Your task to perform on an android device: turn on showing notifications on the lock screen Image 0: 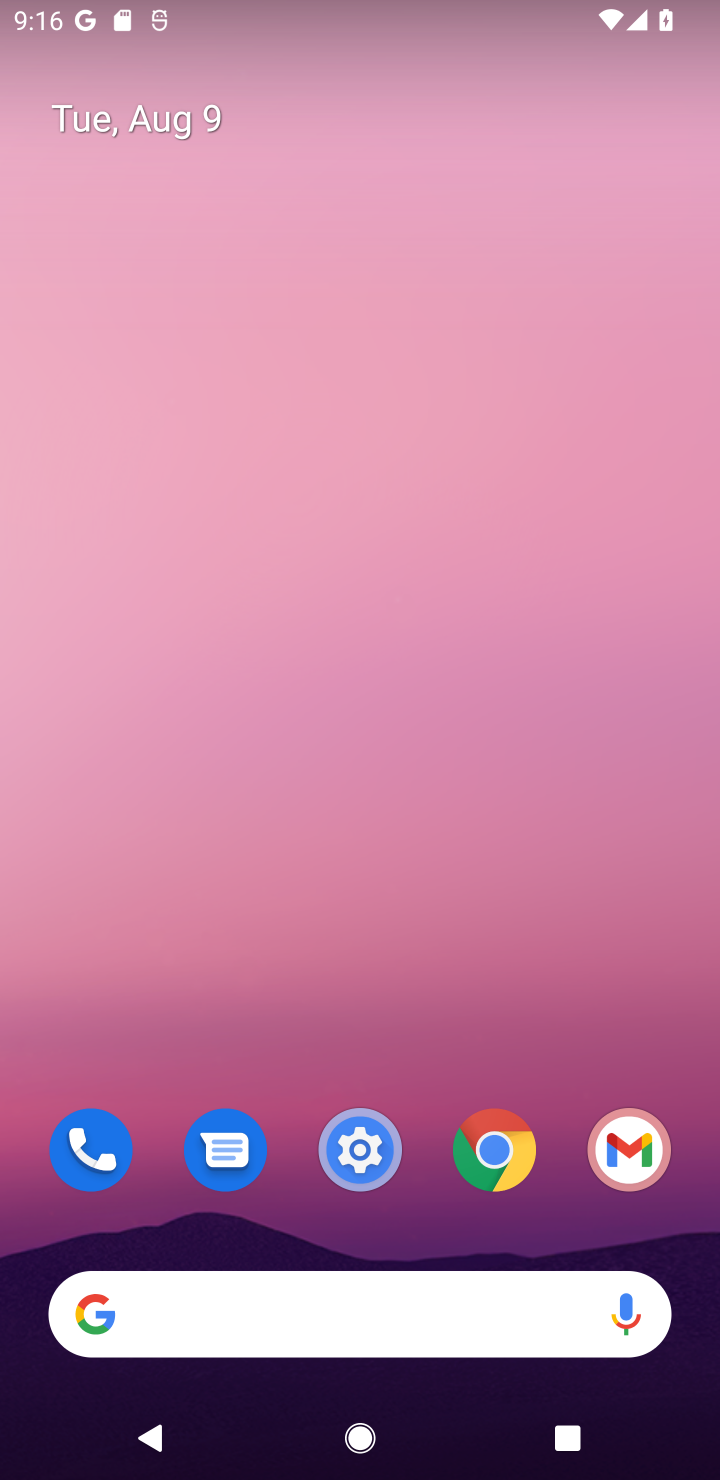
Step 0: drag from (335, 1248) to (472, 197)
Your task to perform on an android device: turn on showing notifications on the lock screen Image 1: 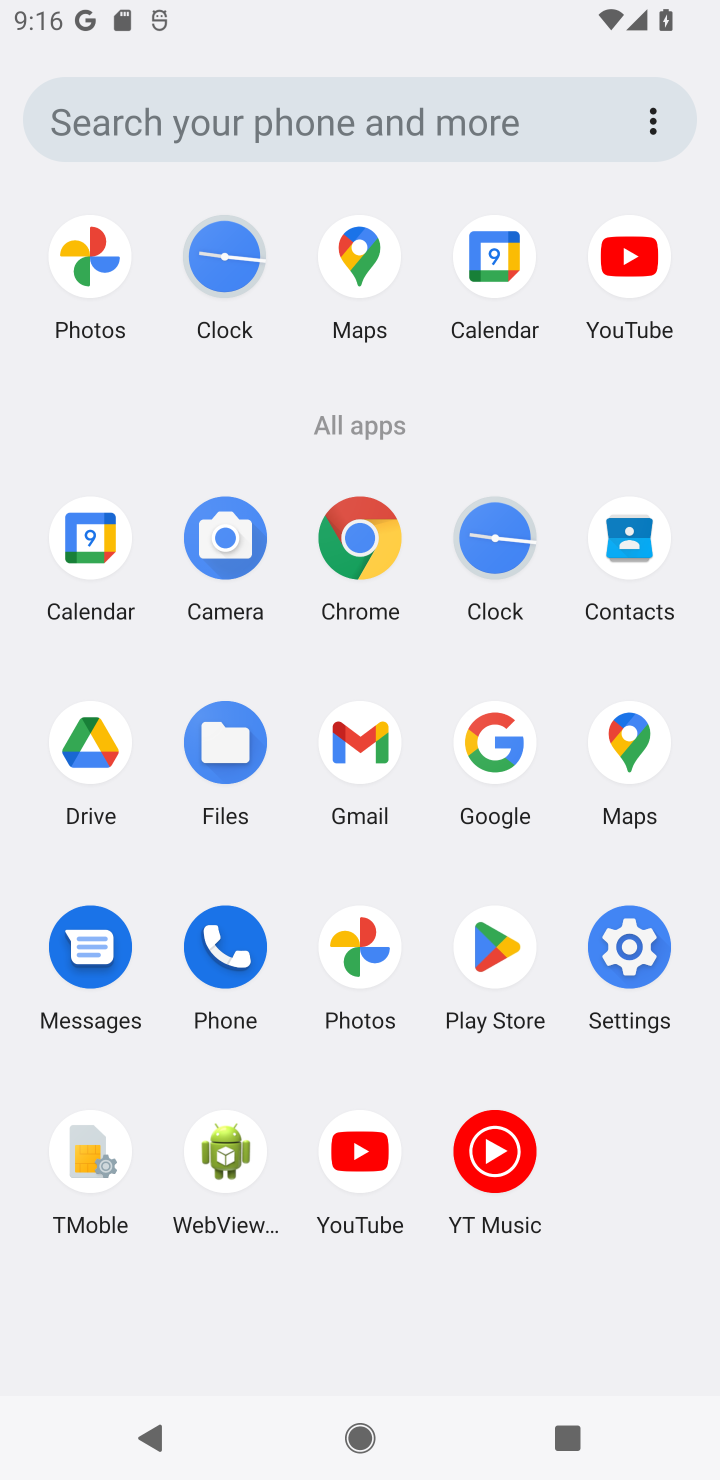
Step 1: click (606, 978)
Your task to perform on an android device: turn on showing notifications on the lock screen Image 2: 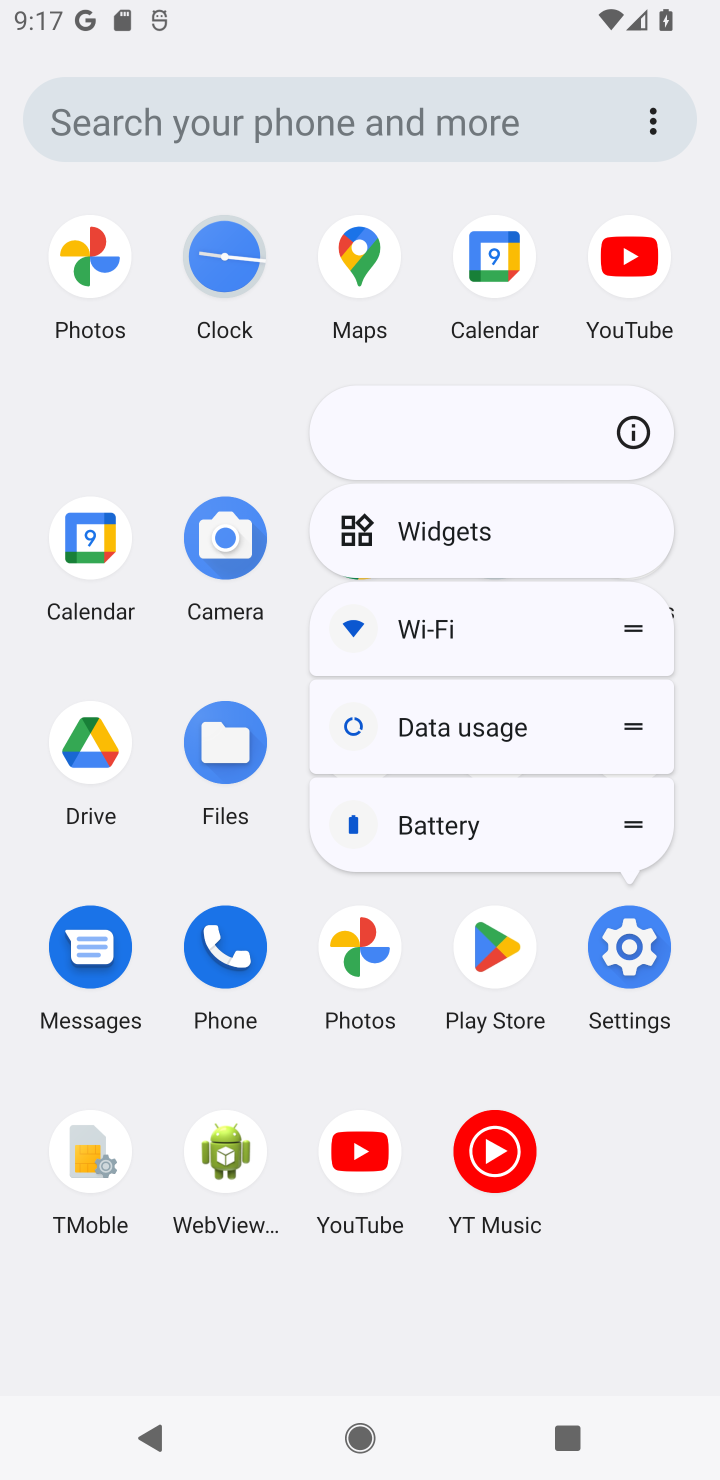
Step 2: click (591, 971)
Your task to perform on an android device: turn on showing notifications on the lock screen Image 3: 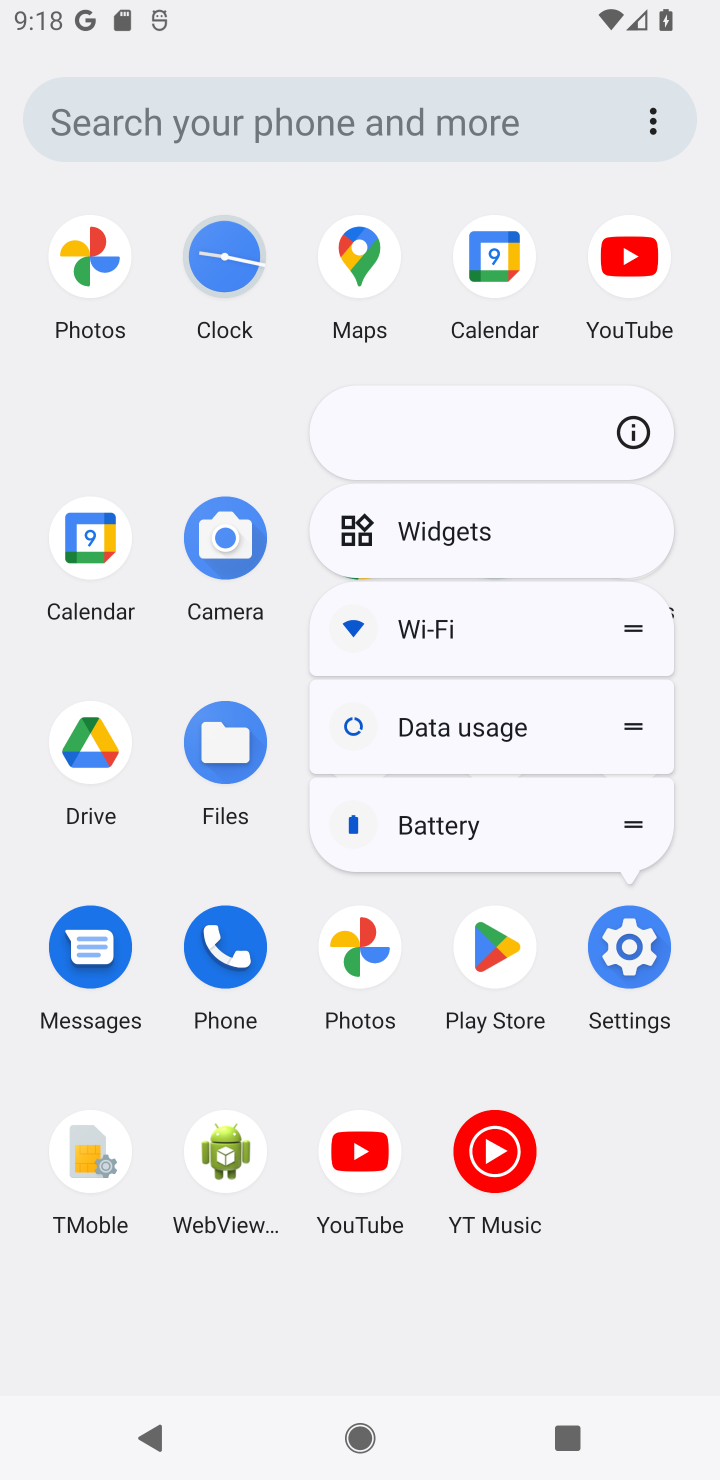
Step 3: click (586, 981)
Your task to perform on an android device: turn on showing notifications on the lock screen Image 4: 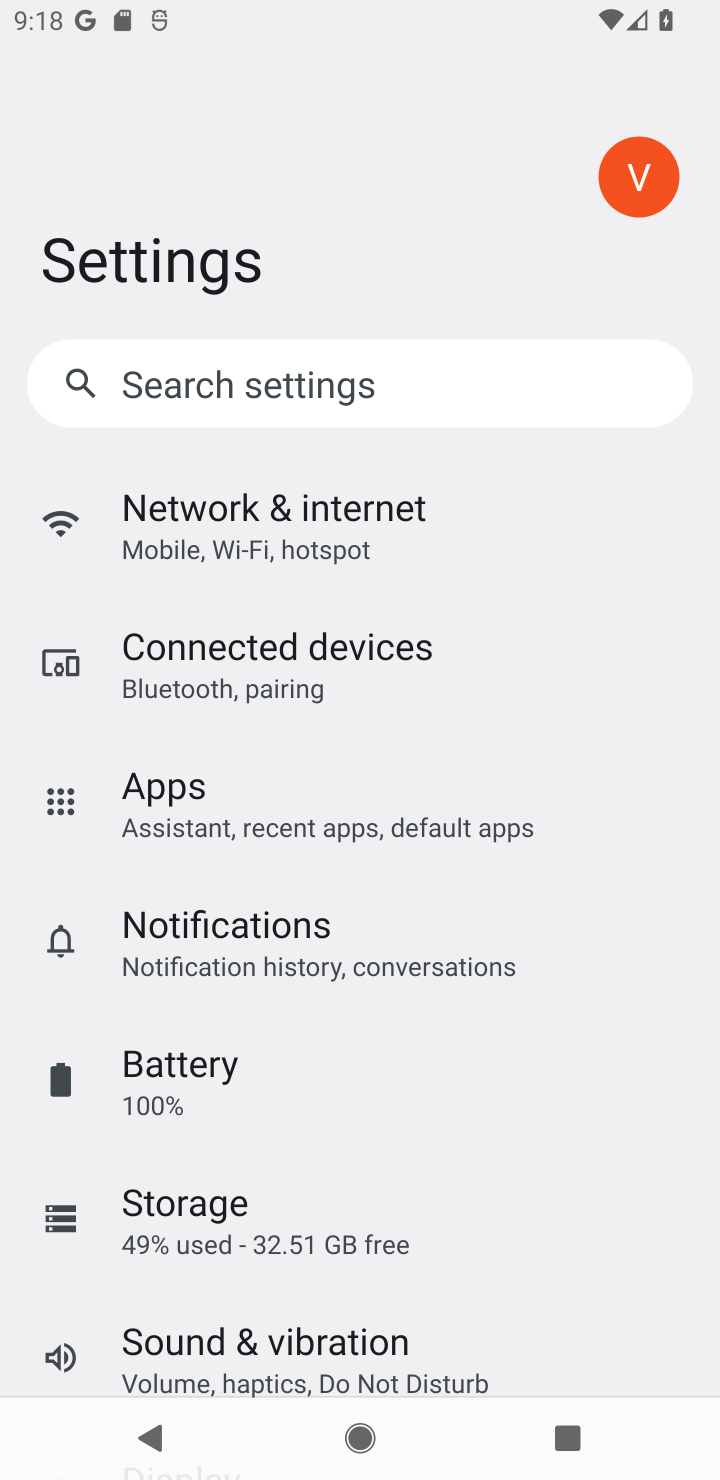
Step 4: click (307, 938)
Your task to perform on an android device: turn on showing notifications on the lock screen Image 5: 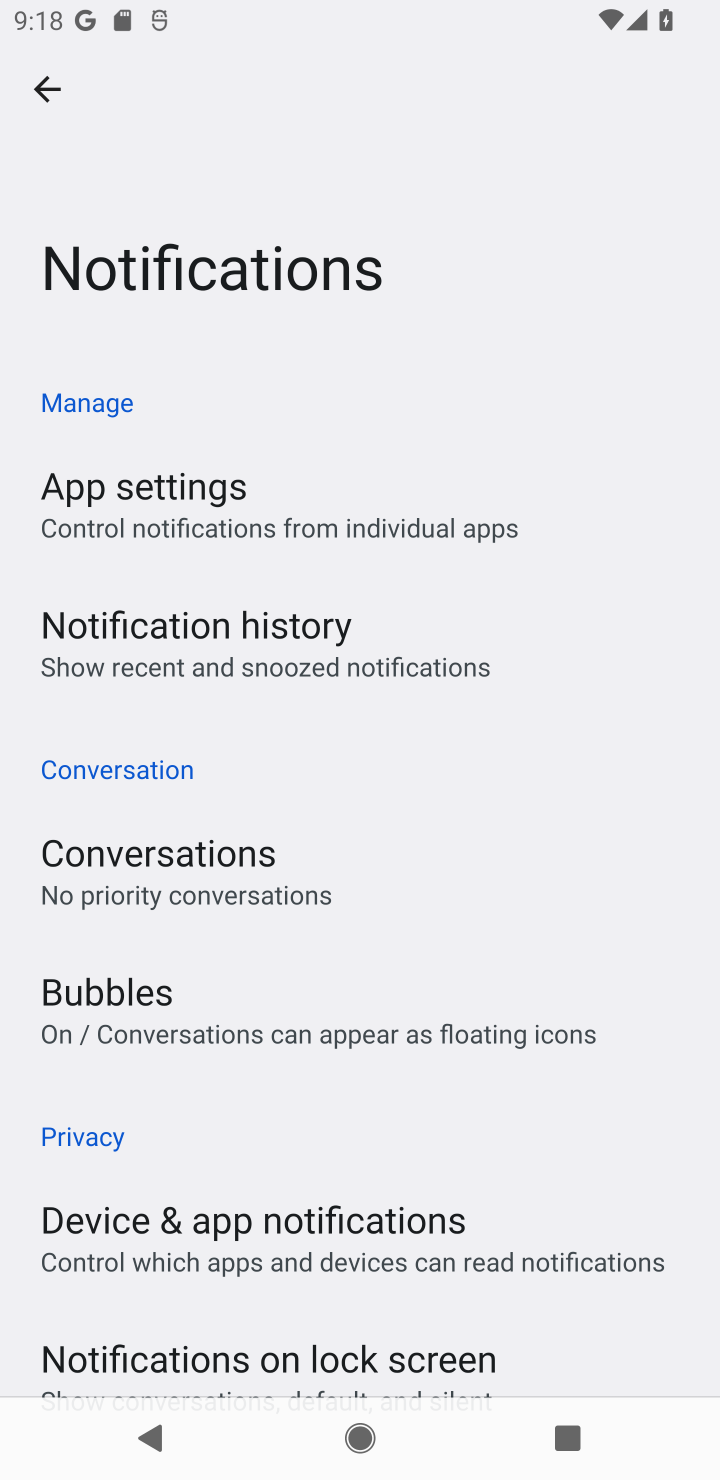
Step 5: task complete